Your task to perform on an android device: open wifi settings Image 0: 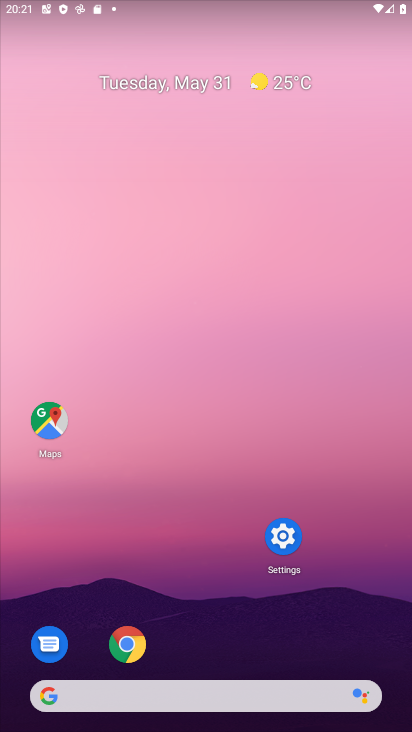
Step 0: drag from (246, 723) to (330, 233)
Your task to perform on an android device: open wifi settings Image 1: 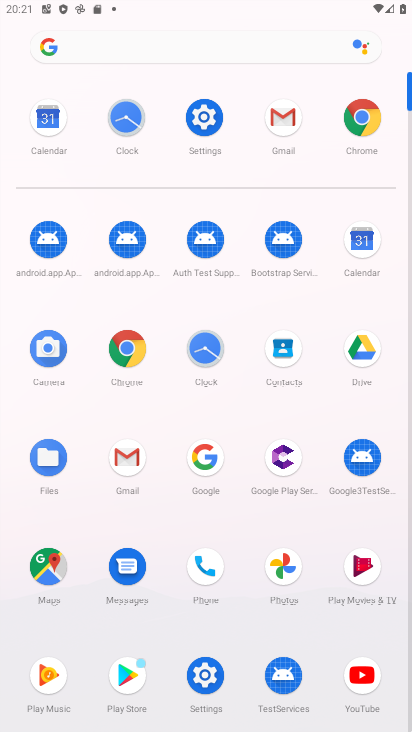
Step 1: click (201, 126)
Your task to perform on an android device: open wifi settings Image 2: 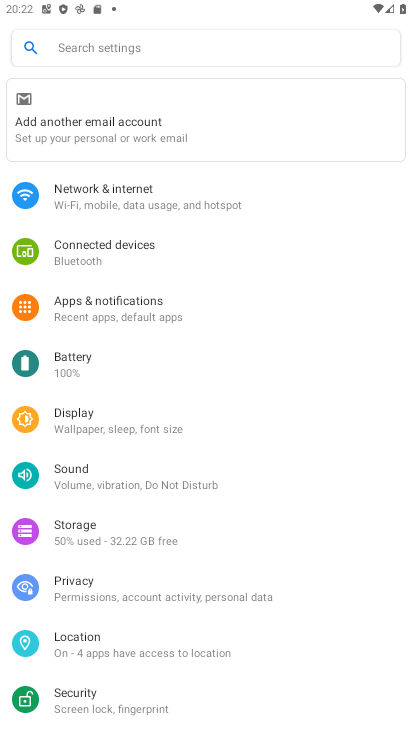
Step 2: click (142, 190)
Your task to perform on an android device: open wifi settings Image 3: 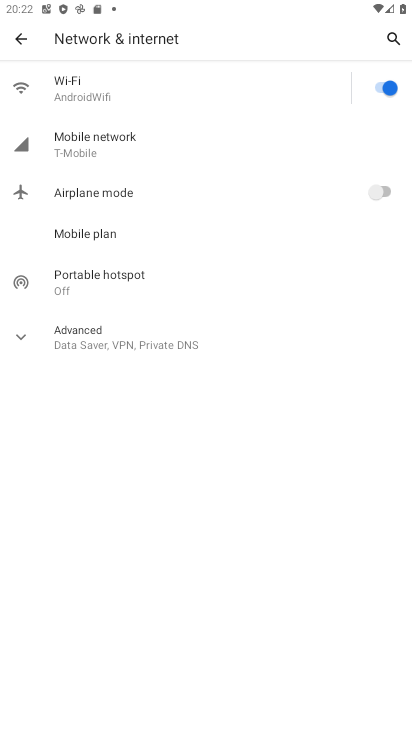
Step 3: task complete